Your task to perform on an android device: Open wifi settings Image 0: 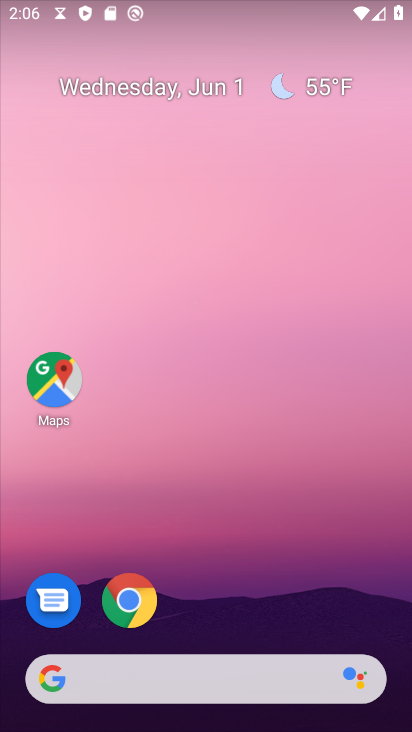
Step 0: drag from (265, 593) to (236, 272)
Your task to perform on an android device: Open wifi settings Image 1: 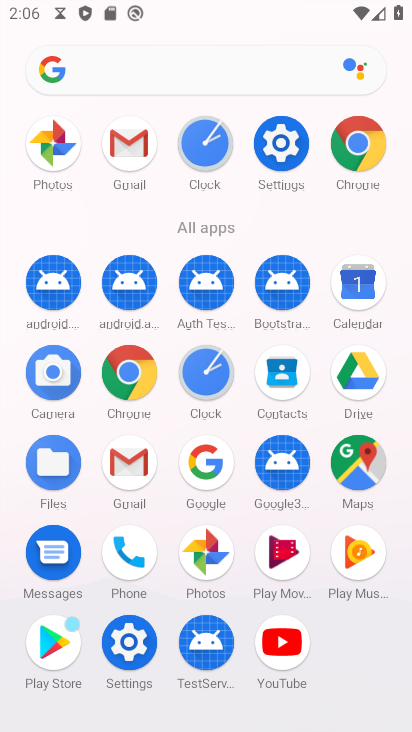
Step 1: click (294, 155)
Your task to perform on an android device: Open wifi settings Image 2: 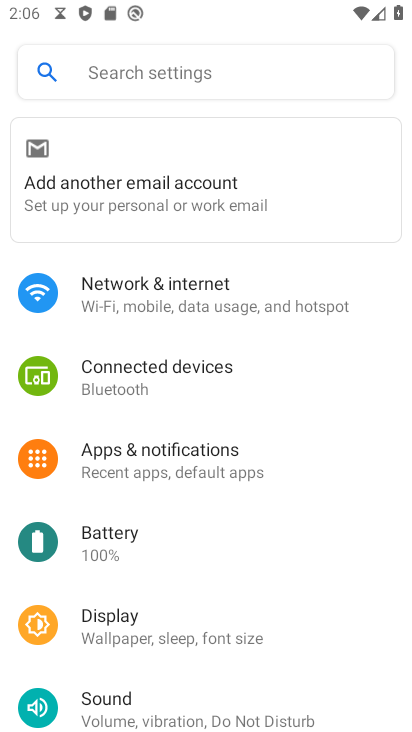
Step 2: click (285, 288)
Your task to perform on an android device: Open wifi settings Image 3: 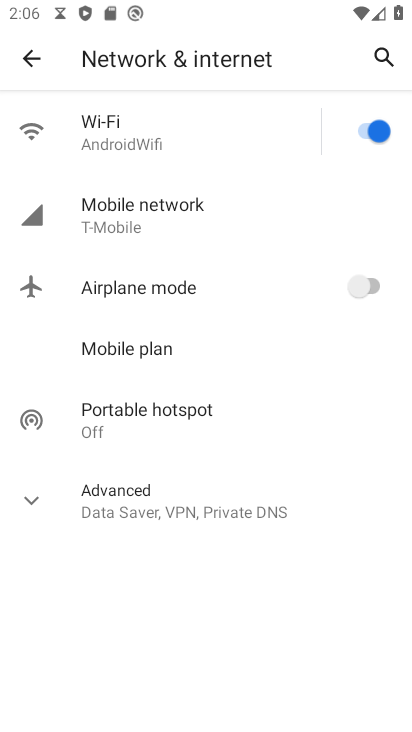
Step 3: click (146, 133)
Your task to perform on an android device: Open wifi settings Image 4: 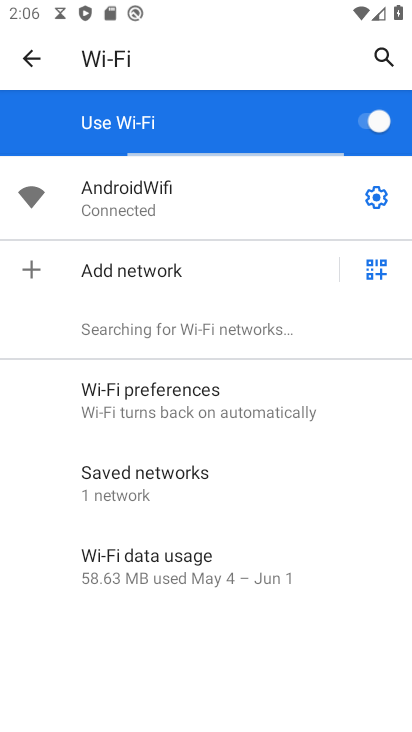
Step 4: task complete